Your task to perform on an android device: add a contact in the contacts app Image 0: 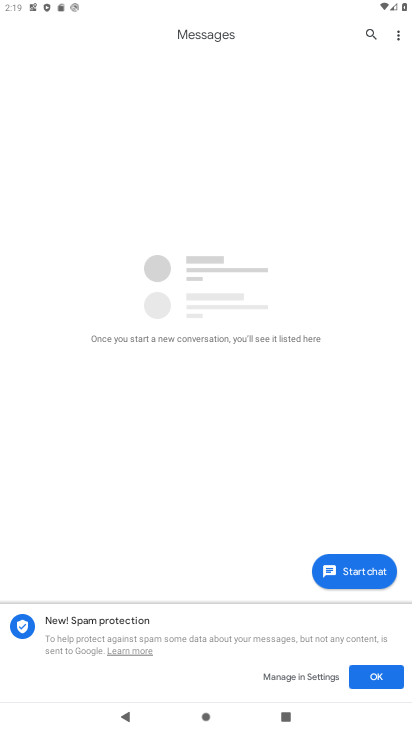
Step 0: press home button
Your task to perform on an android device: add a contact in the contacts app Image 1: 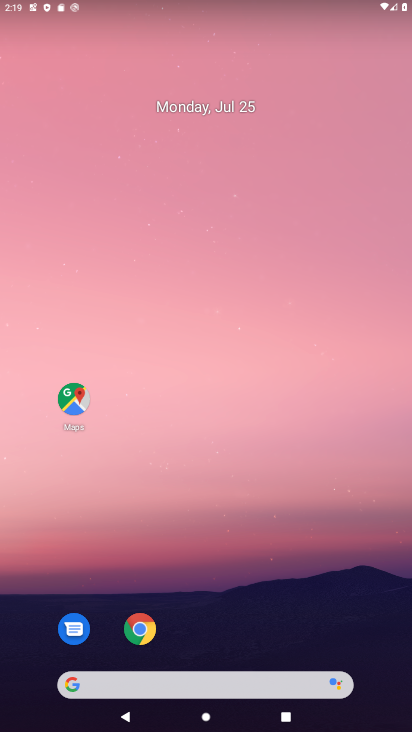
Step 1: drag from (222, 382) to (259, 0)
Your task to perform on an android device: add a contact in the contacts app Image 2: 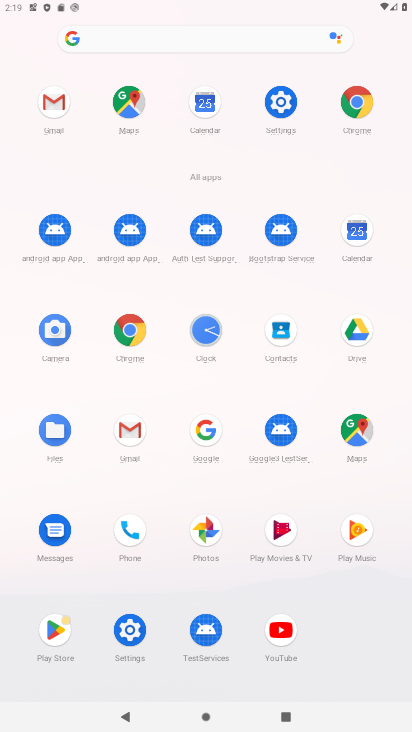
Step 2: click (292, 334)
Your task to perform on an android device: add a contact in the contacts app Image 3: 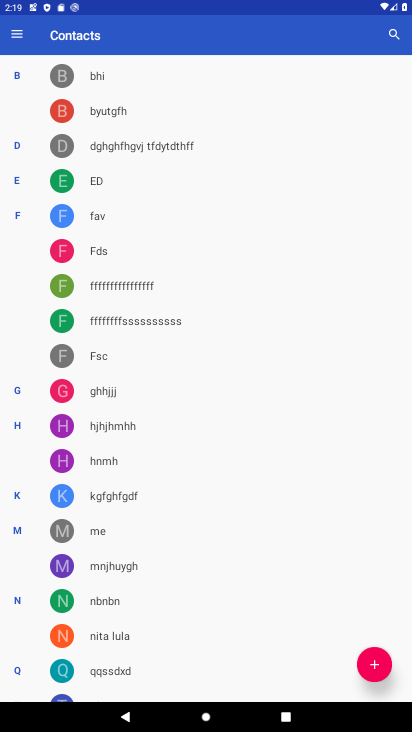
Step 3: click (374, 658)
Your task to perform on an android device: add a contact in the contacts app Image 4: 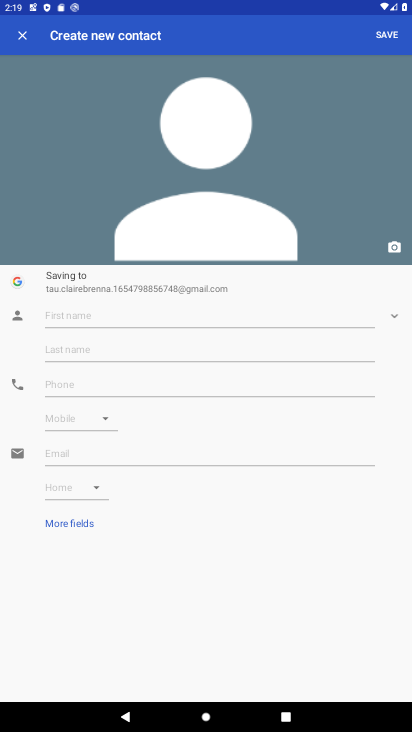
Step 4: click (188, 318)
Your task to perform on an android device: add a contact in the contacts app Image 5: 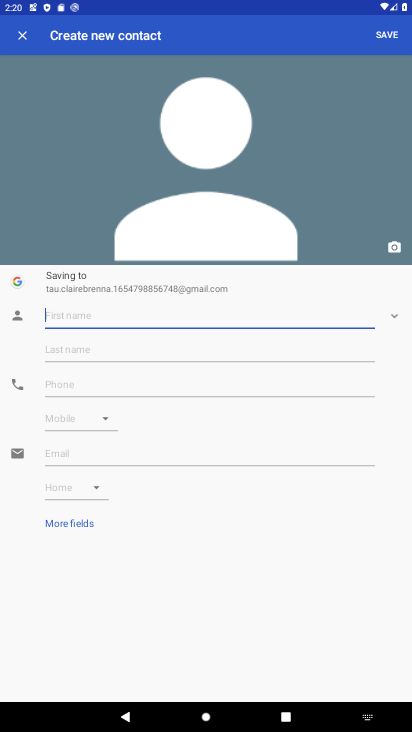
Step 5: type "frost"
Your task to perform on an android device: add a contact in the contacts app Image 6: 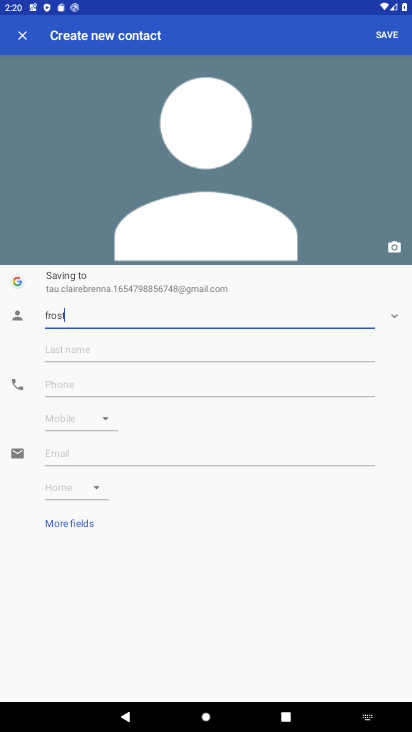
Step 6: click (291, 363)
Your task to perform on an android device: add a contact in the contacts app Image 7: 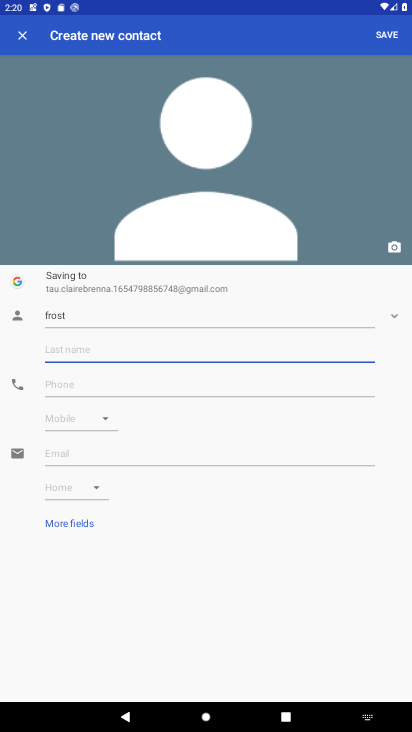
Step 7: type "giant"
Your task to perform on an android device: add a contact in the contacts app Image 8: 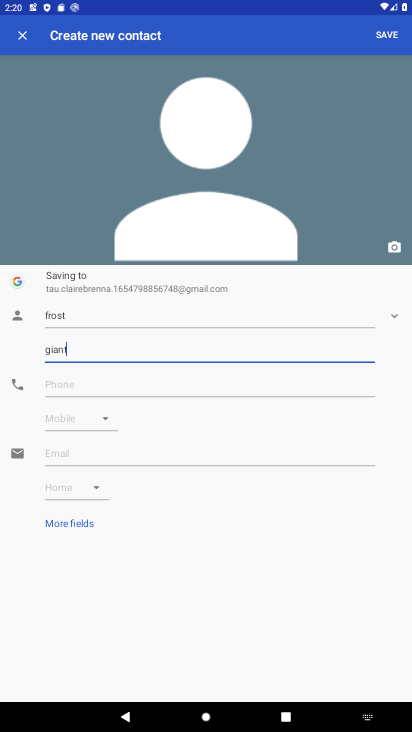
Step 8: click (384, 32)
Your task to perform on an android device: add a contact in the contacts app Image 9: 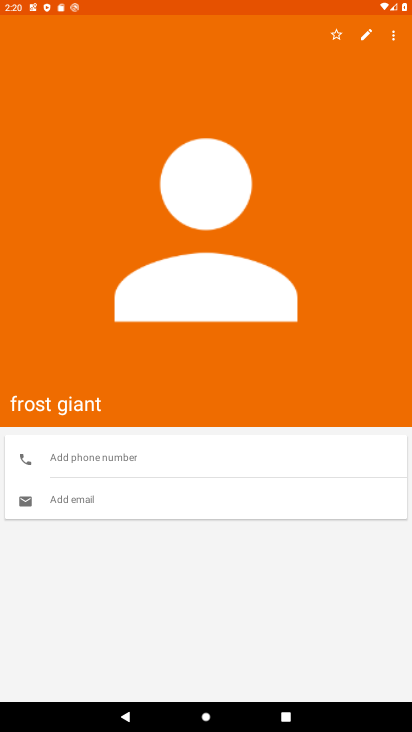
Step 9: task complete